Your task to perform on an android device: change the clock display to analog Image 0: 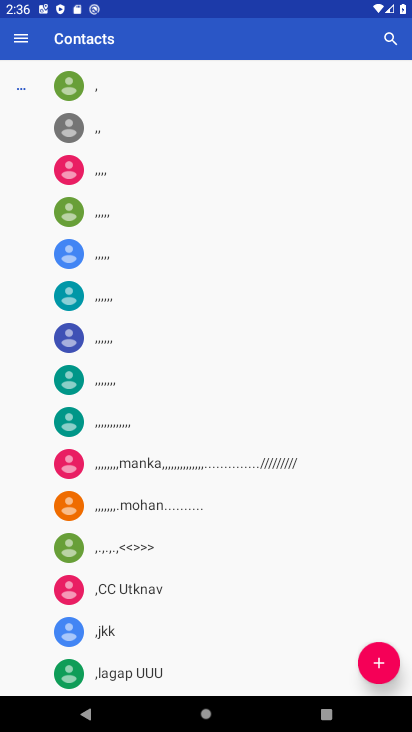
Step 0: press home button
Your task to perform on an android device: change the clock display to analog Image 1: 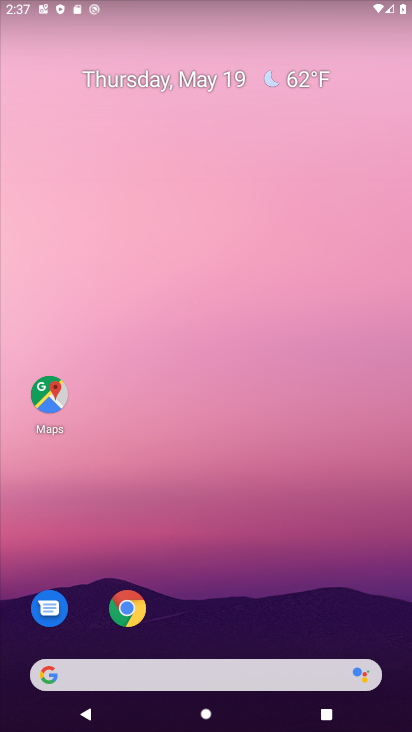
Step 1: drag from (248, 574) to (290, 249)
Your task to perform on an android device: change the clock display to analog Image 2: 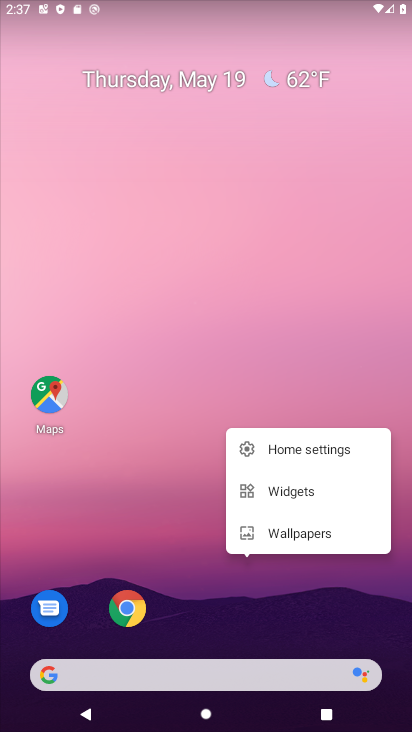
Step 2: click (181, 452)
Your task to perform on an android device: change the clock display to analog Image 3: 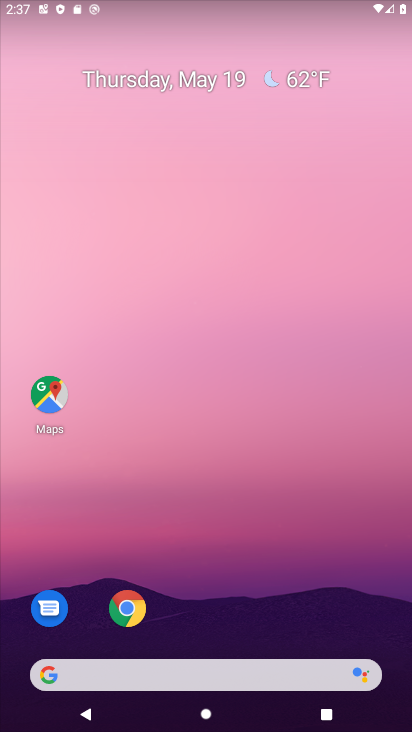
Step 3: drag from (181, 569) to (191, 41)
Your task to perform on an android device: change the clock display to analog Image 4: 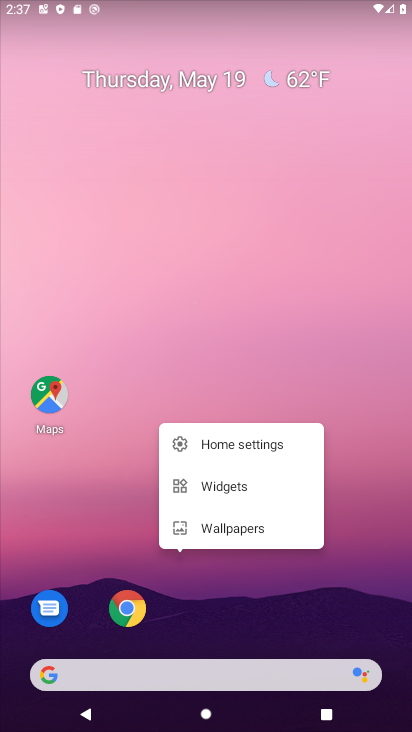
Step 4: click (232, 609)
Your task to perform on an android device: change the clock display to analog Image 5: 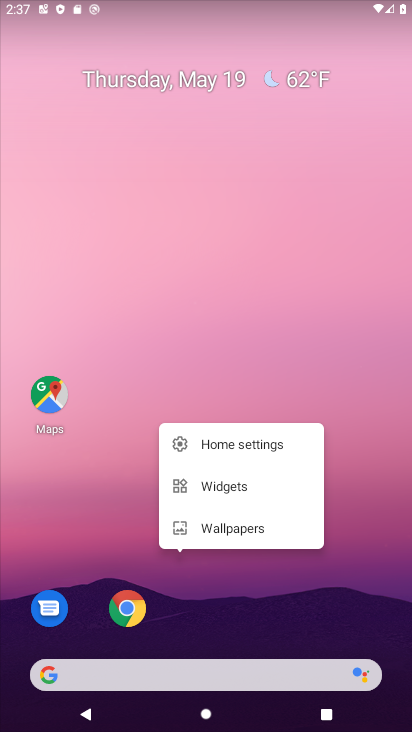
Step 5: click (232, 609)
Your task to perform on an android device: change the clock display to analog Image 6: 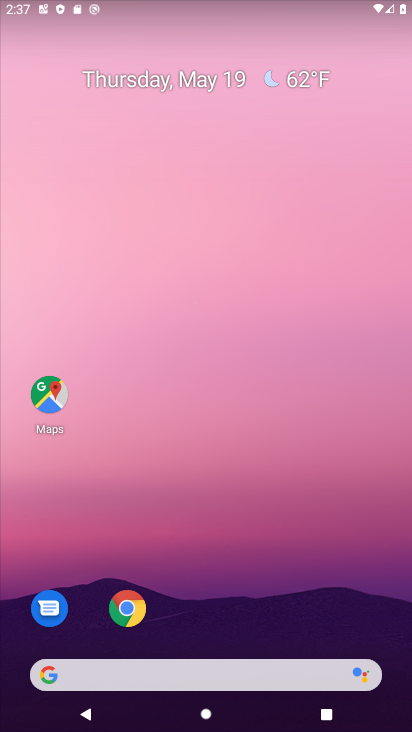
Step 6: drag from (232, 609) to (264, 102)
Your task to perform on an android device: change the clock display to analog Image 7: 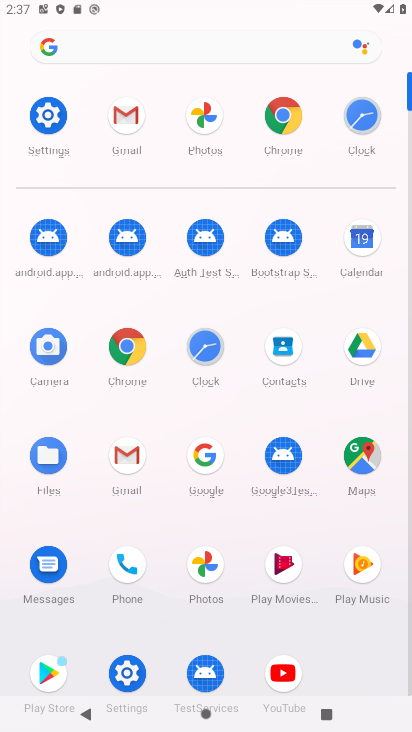
Step 7: click (346, 125)
Your task to perform on an android device: change the clock display to analog Image 8: 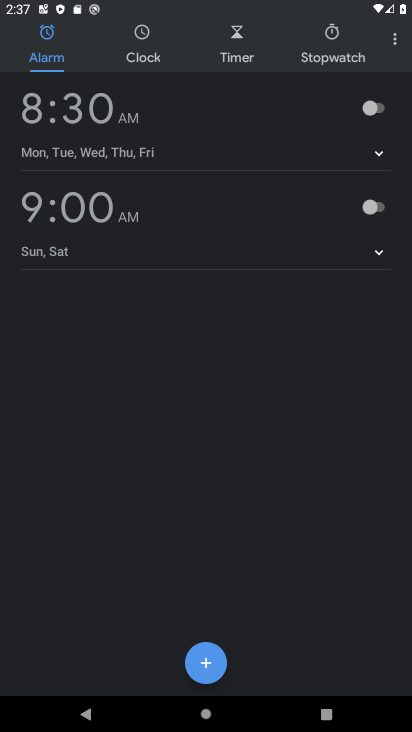
Step 8: click (397, 41)
Your task to perform on an android device: change the clock display to analog Image 9: 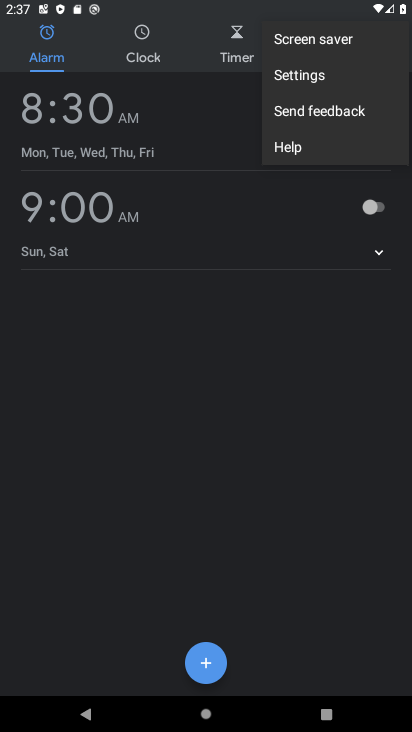
Step 9: click (304, 83)
Your task to perform on an android device: change the clock display to analog Image 10: 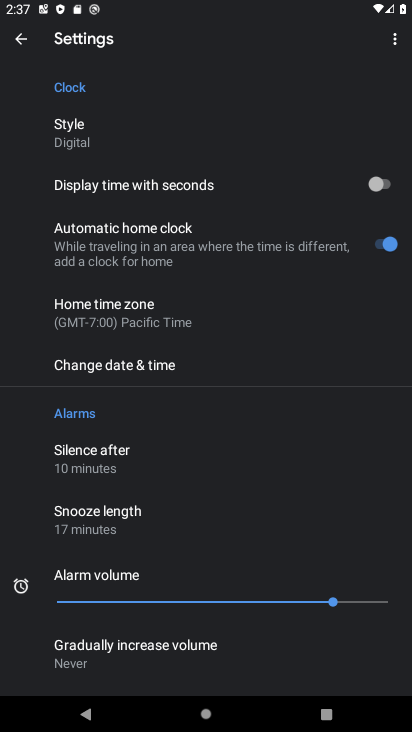
Step 10: click (153, 127)
Your task to perform on an android device: change the clock display to analog Image 11: 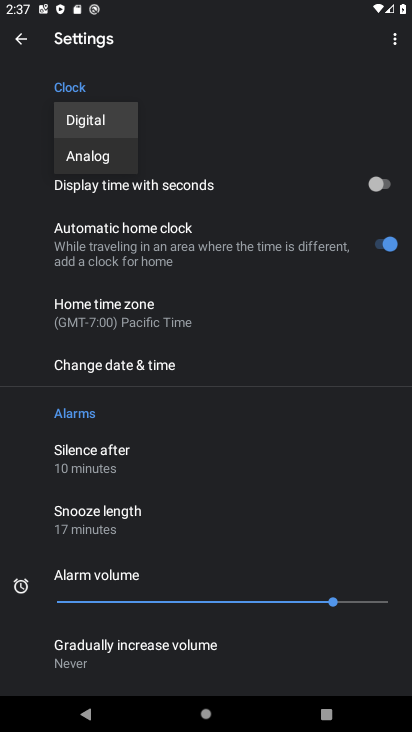
Step 11: click (94, 148)
Your task to perform on an android device: change the clock display to analog Image 12: 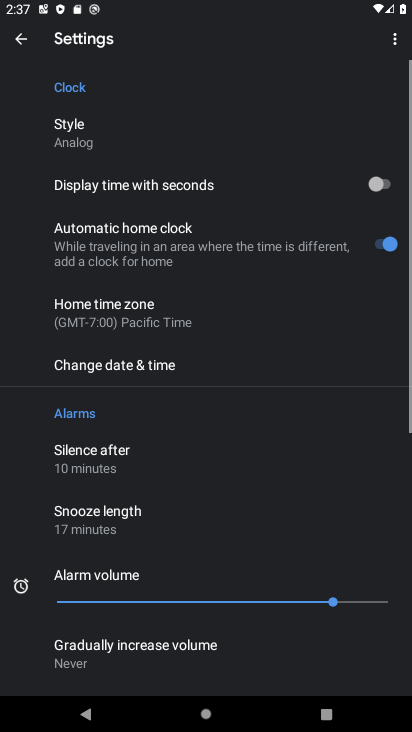
Step 12: task complete